Your task to perform on an android device: Open network settings Image 0: 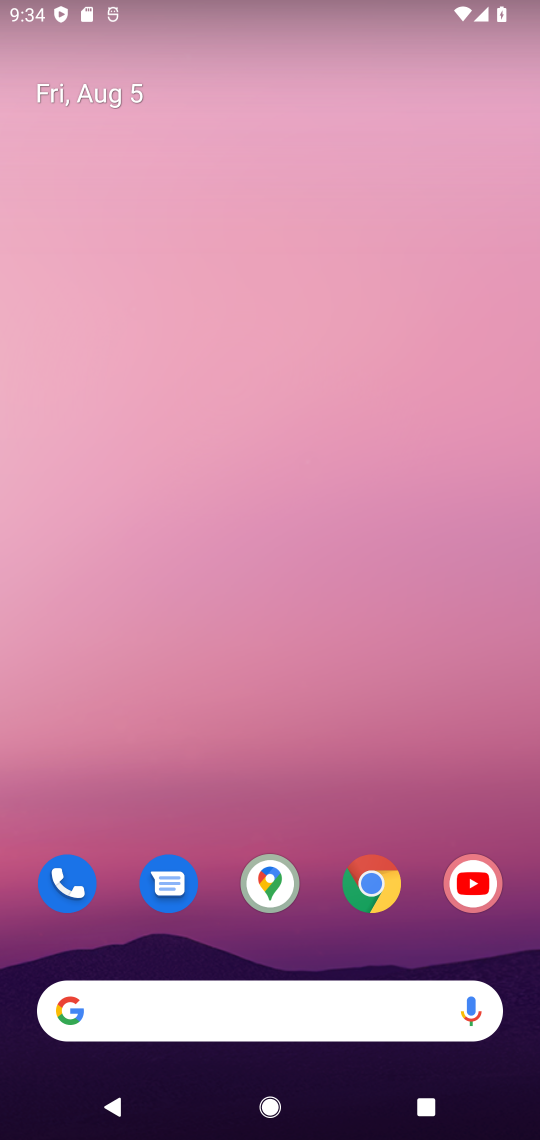
Step 0: drag from (272, 876) to (354, 35)
Your task to perform on an android device: Open network settings Image 1: 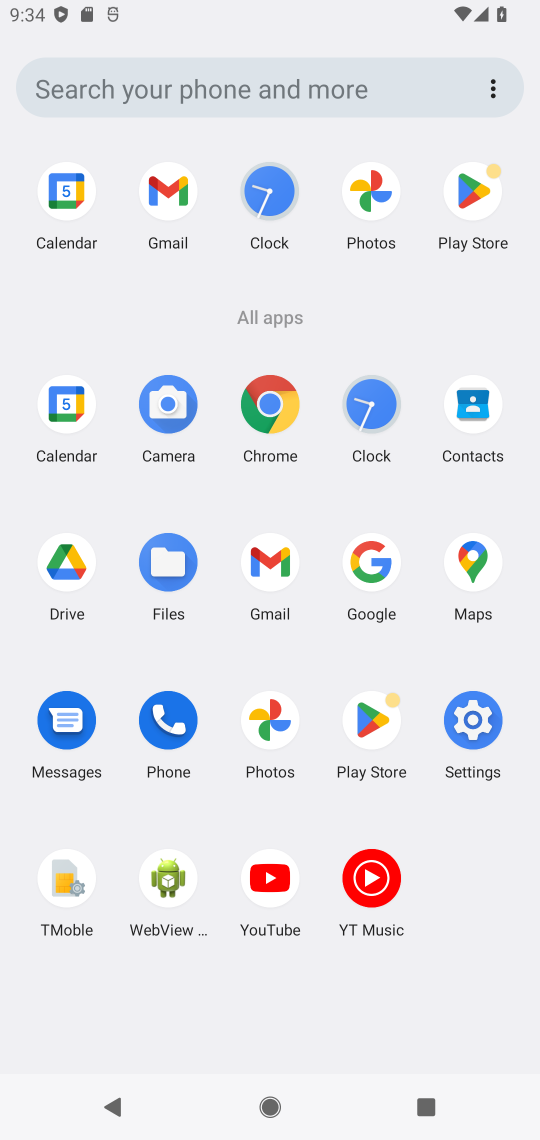
Step 1: click (478, 736)
Your task to perform on an android device: Open network settings Image 2: 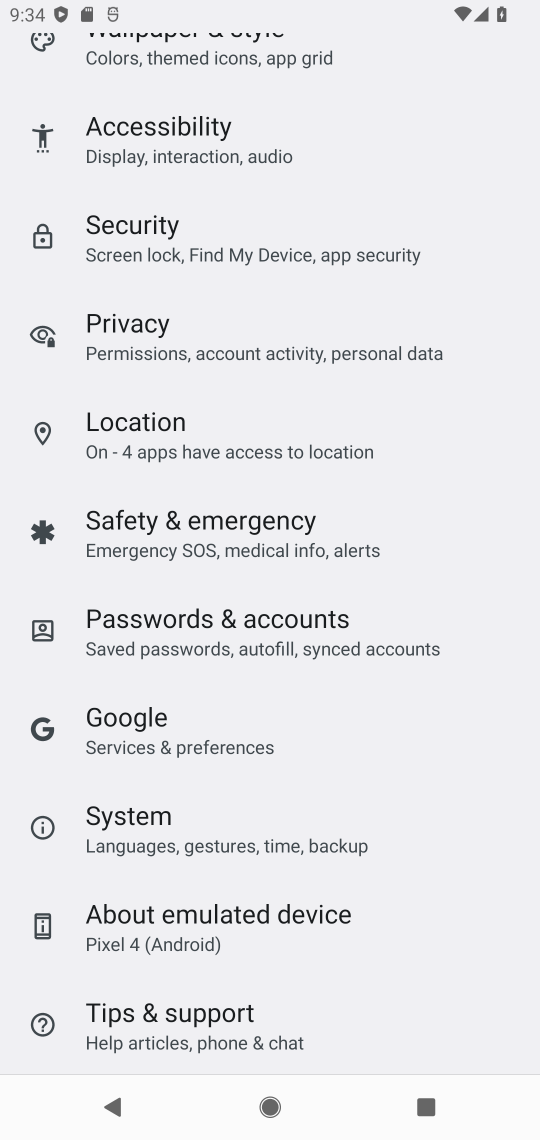
Step 2: drag from (366, 231) to (337, 1122)
Your task to perform on an android device: Open network settings Image 3: 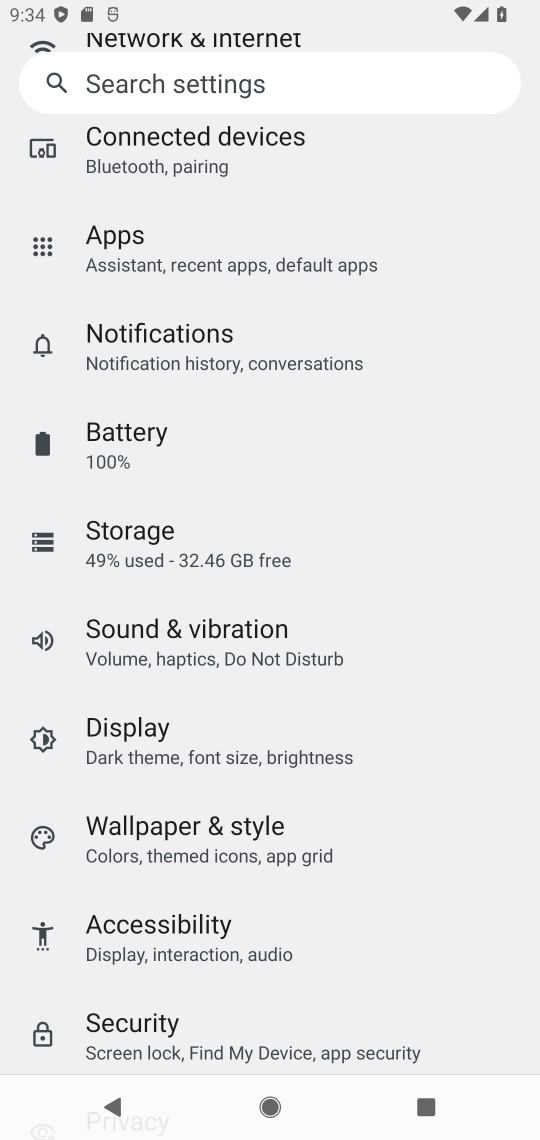
Step 3: drag from (310, 209) to (280, 1120)
Your task to perform on an android device: Open network settings Image 4: 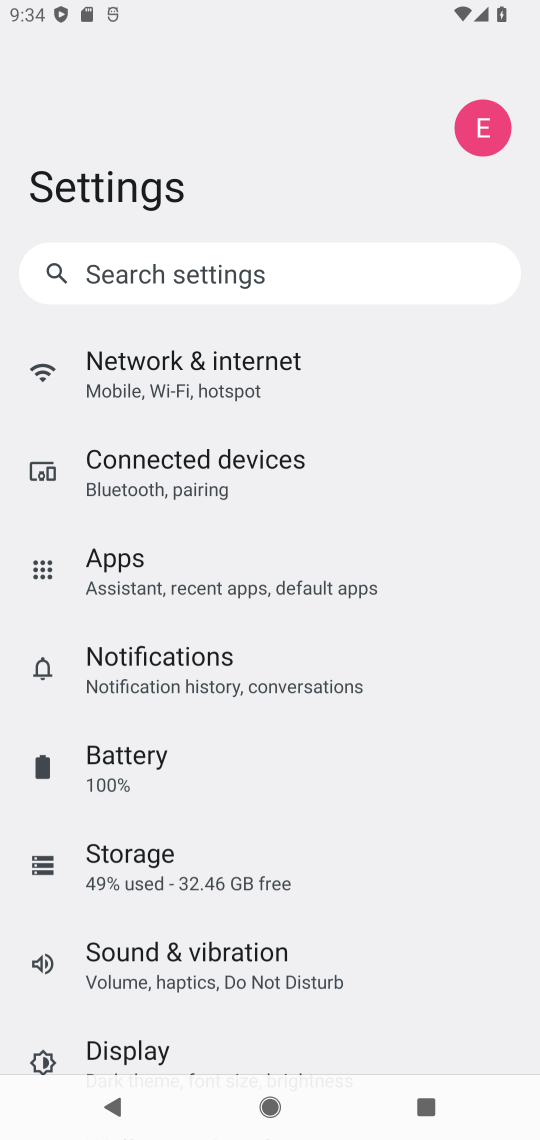
Step 4: click (175, 356)
Your task to perform on an android device: Open network settings Image 5: 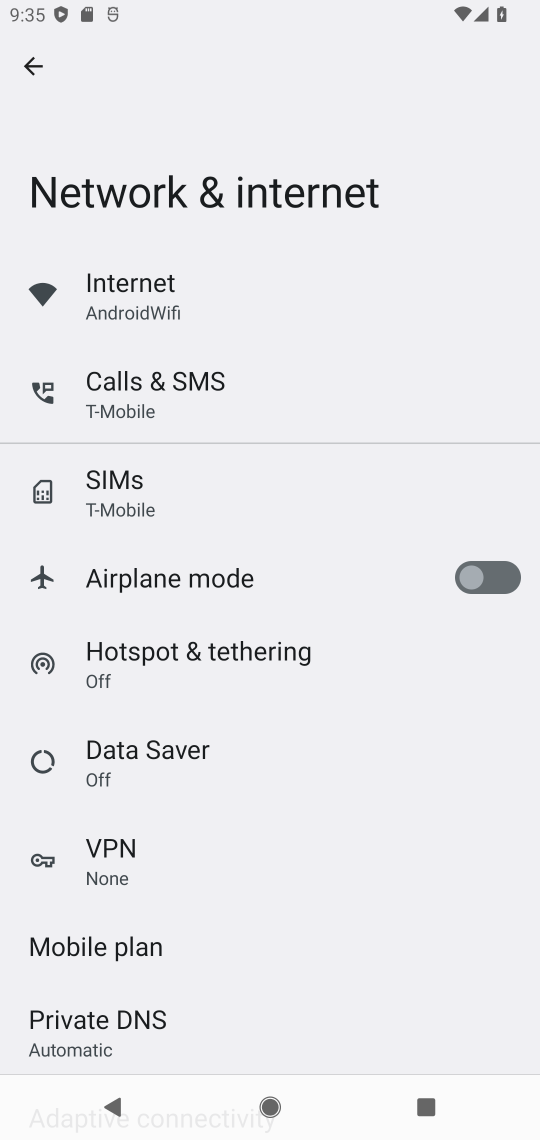
Step 5: task complete